Your task to perform on an android device: turn off priority inbox in the gmail app Image 0: 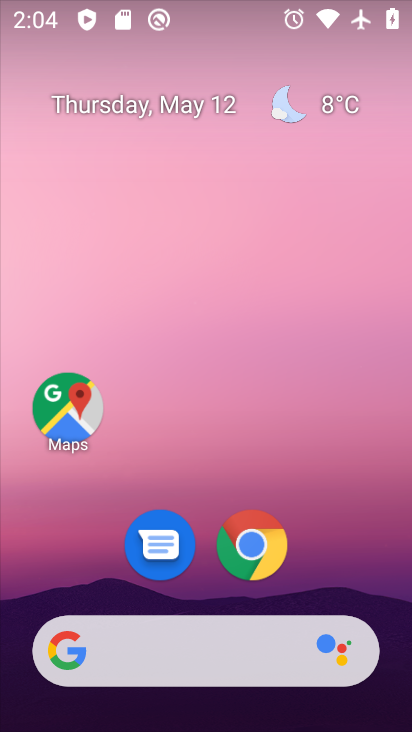
Step 0: drag from (393, 614) to (299, 262)
Your task to perform on an android device: turn off priority inbox in the gmail app Image 1: 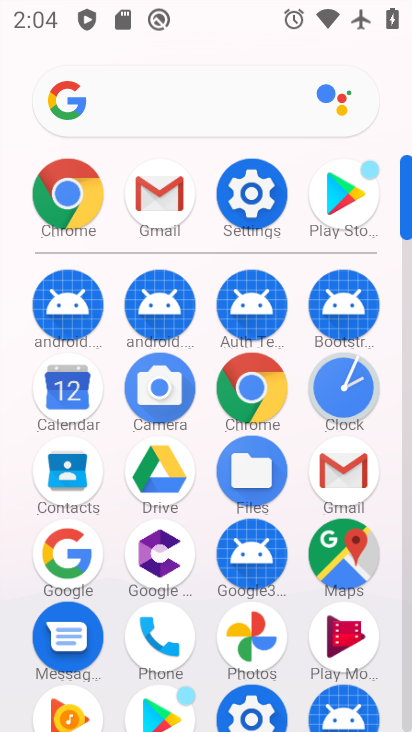
Step 1: click (342, 468)
Your task to perform on an android device: turn off priority inbox in the gmail app Image 2: 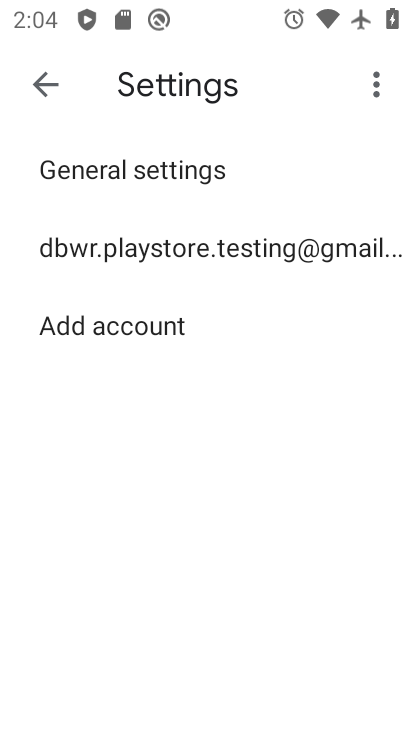
Step 2: click (128, 243)
Your task to perform on an android device: turn off priority inbox in the gmail app Image 3: 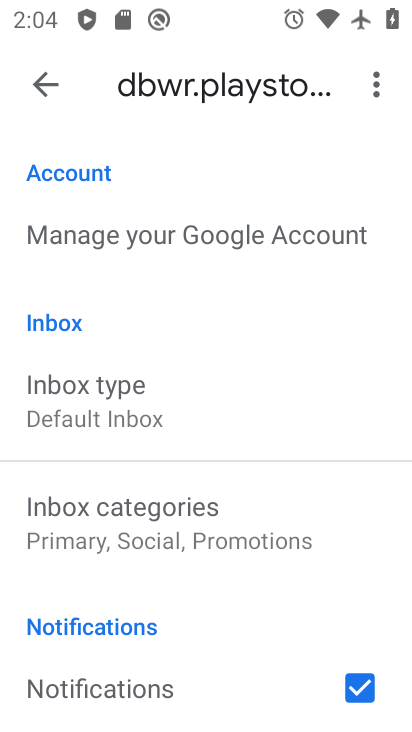
Step 3: click (75, 400)
Your task to perform on an android device: turn off priority inbox in the gmail app Image 4: 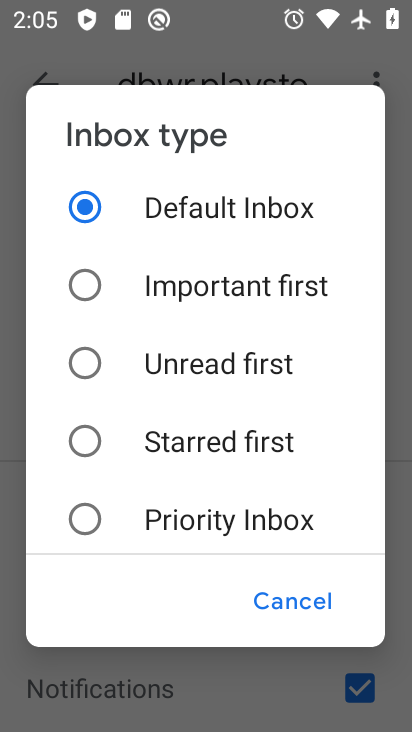
Step 4: task complete